Your task to perform on an android device: allow cookies in the chrome app Image 0: 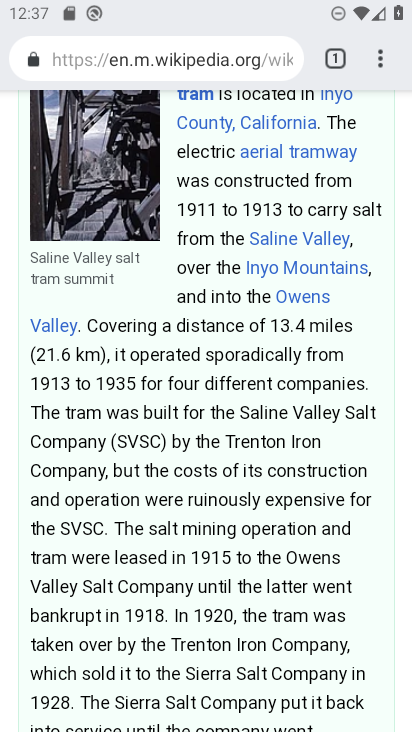
Step 0: press home button
Your task to perform on an android device: allow cookies in the chrome app Image 1: 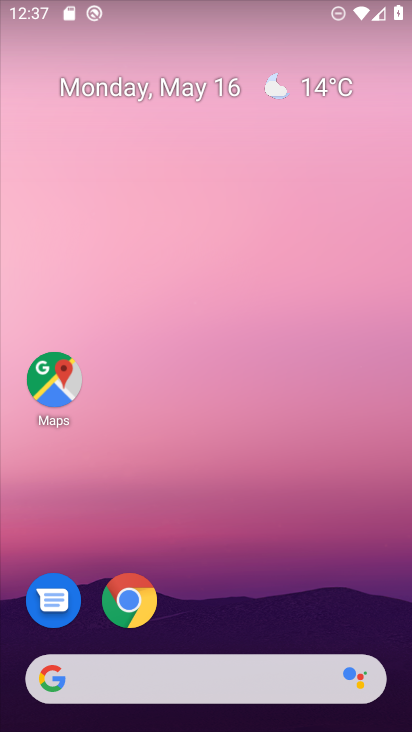
Step 1: click (127, 592)
Your task to perform on an android device: allow cookies in the chrome app Image 2: 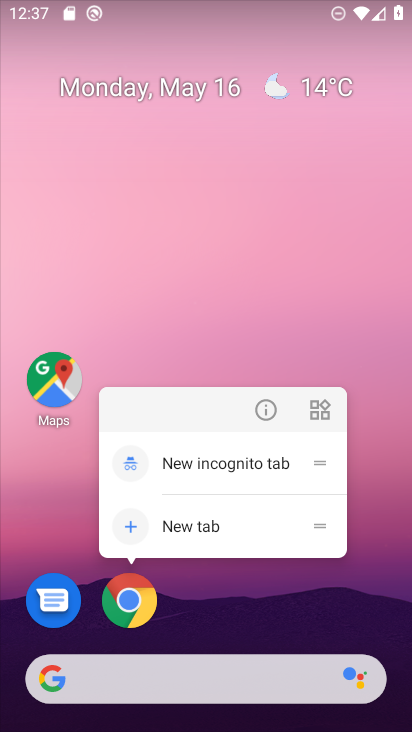
Step 2: click (325, 590)
Your task to perform on an android device: allow cookies in the chrome app Image 3: 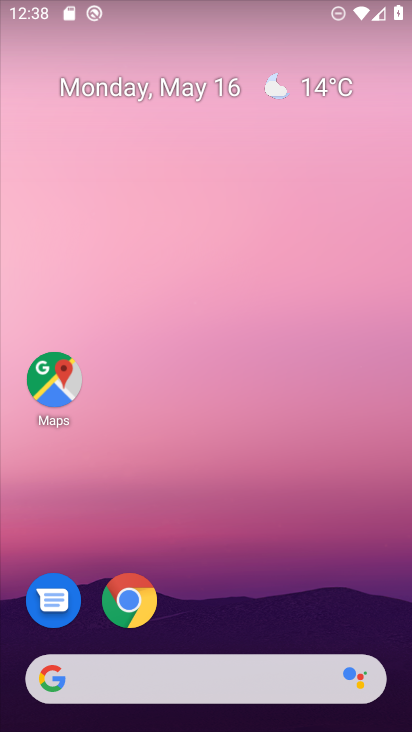
Step 3: click (118, 597)
Your task to perform on an android device: allow cookies in the chrome app Image 4: 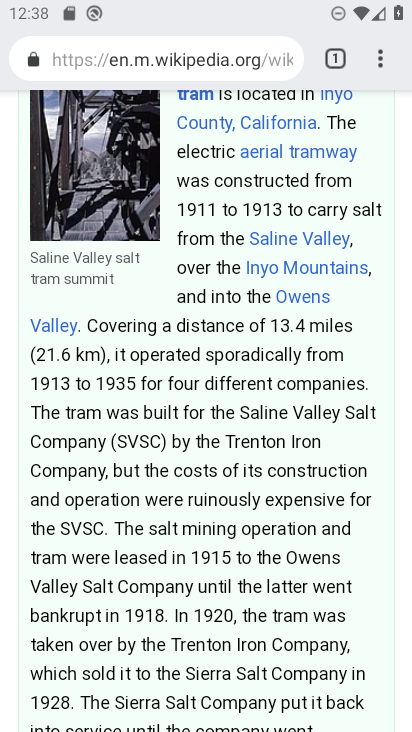
Step 4: click (388, 54)
Your task to perform on an android device: allow cookies in the chrome app Image 5: 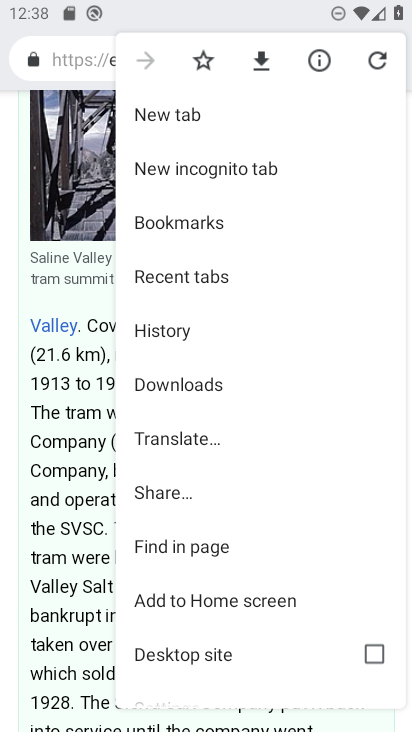
Step 5: drag from (257, 635) to (261, 132)
Your task to perform on an android device: allow cookies in the chrome app Image 6: 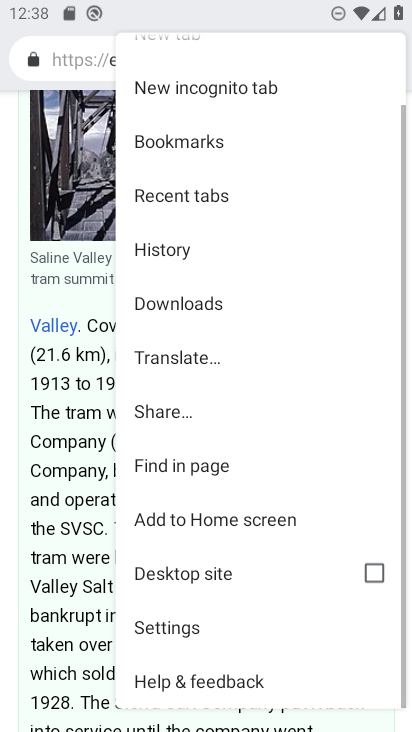
Step 6: click (205, 621)
Your task to perform on an android device: allow cookies in the chrome app Image 7: 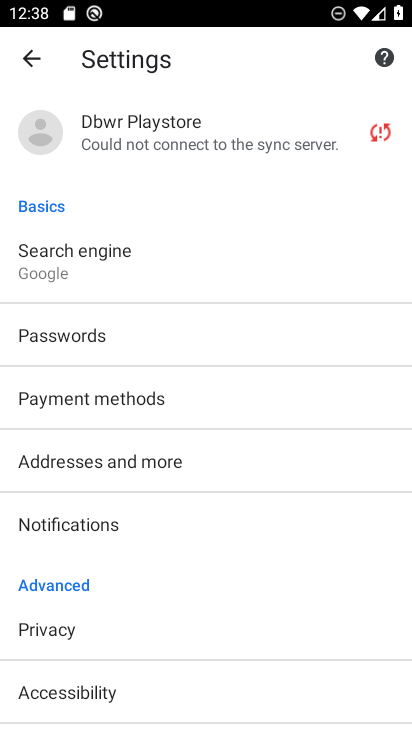
Step 7: drag from (219, 651) to (220, 144)
Your task to perform on an android device: allow cookies in the chrome app Image 8: 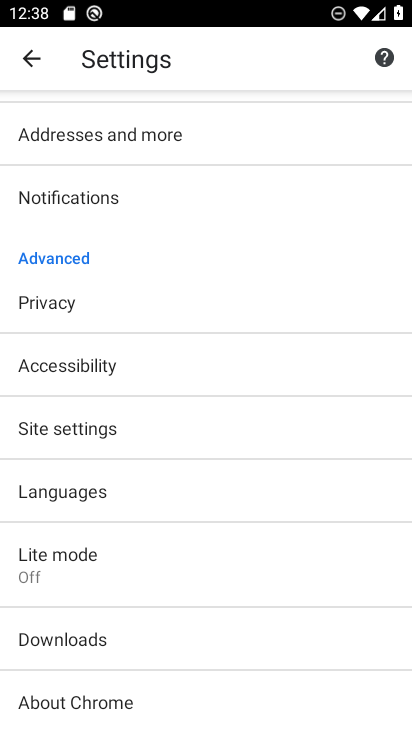
Step 8: click (129, 431)
Your task to perform on an android device: allow cookies in the chrome app Image 9: 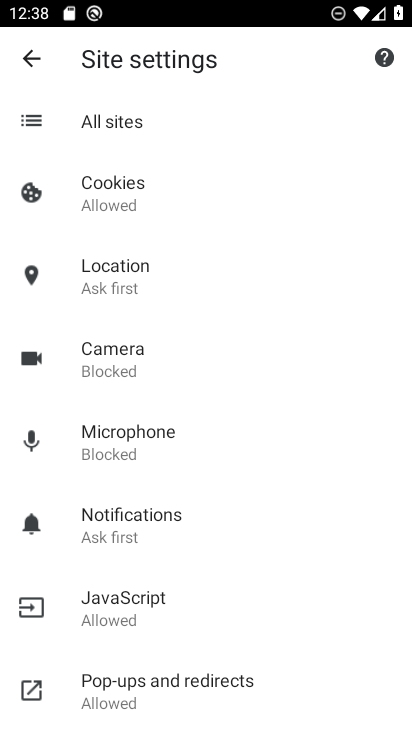
Step 9: click (172, 194)
Your task to perform on an android device: allow cookies in the chrome app Image 10: 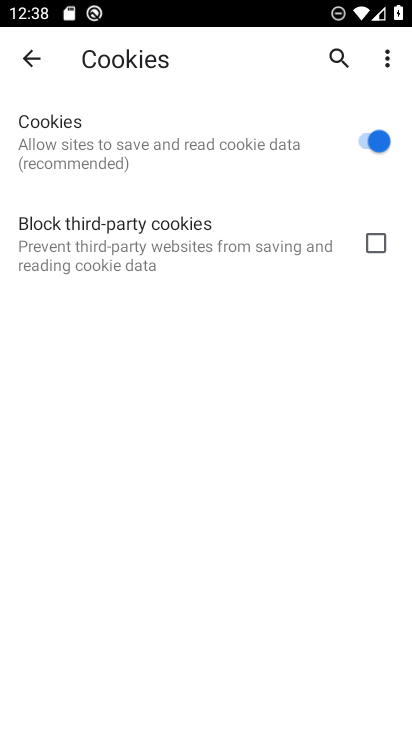
Step 10: task complete